Your task to perform on an android device: Open the map Image 0: 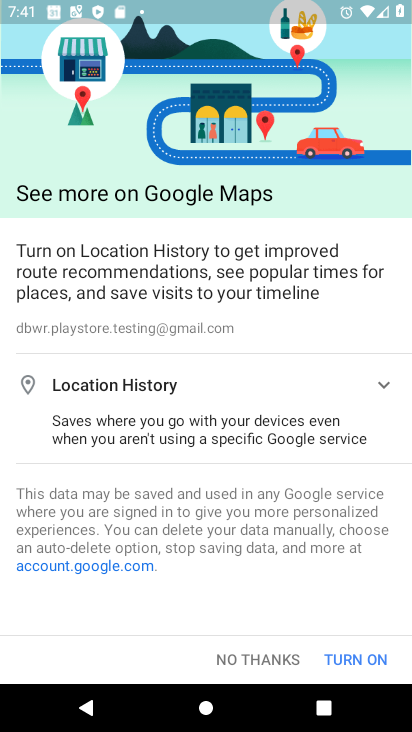
Step 0: task complete